Your task to perform on an android device: turn off wifi Image 0: 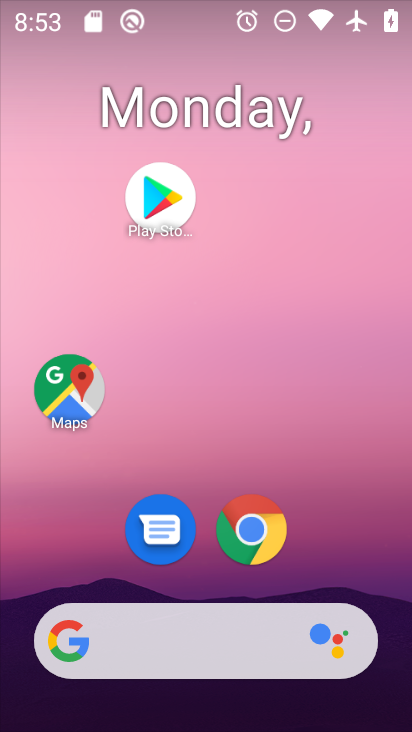
Step 0: drag from (331, 548) to (191, 82)
Your task to perform on an android device: turn off wifi Image 1: 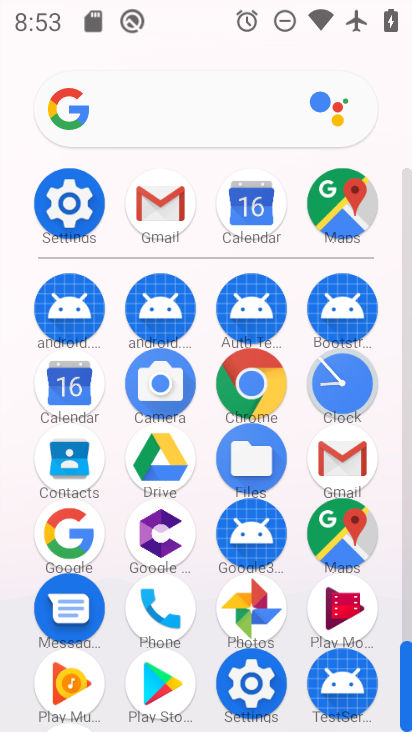
Step 1: click (69, 200)
Your task to perform on an android device: turn off wifi Image 2: 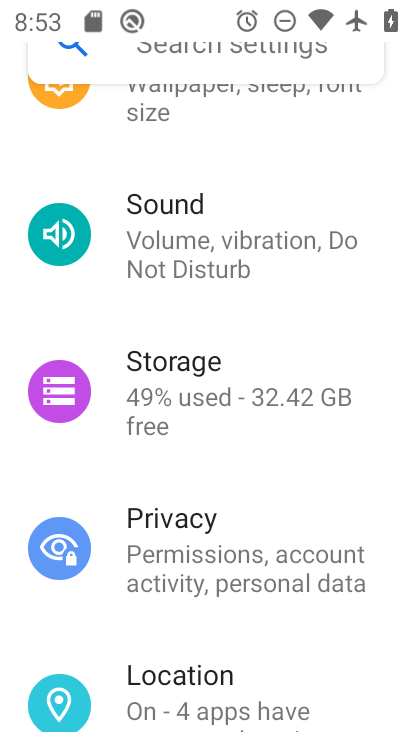
Step 2: drag from (250, 165) to (352, 702)
Your task to perform on an android device: turn off wifi Image 3: 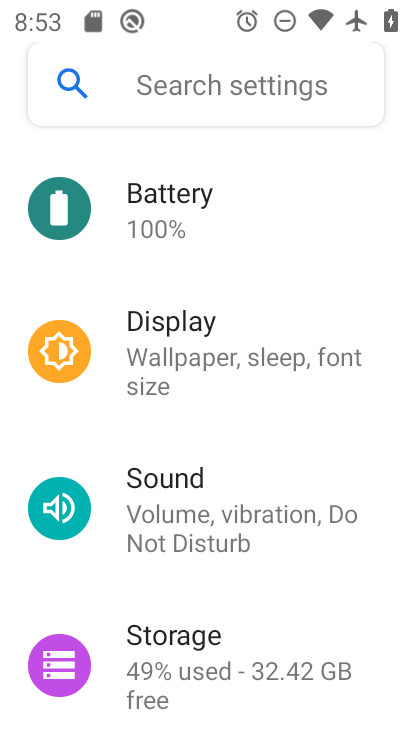
Step 3: drag from (213, 271) to (200, 686)
Your task to perform on an android device: turn off wifi Image 4: 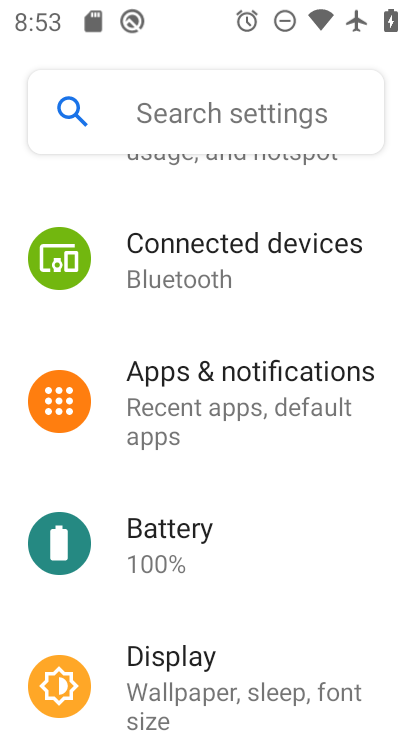
Step 4: drag from (225, 321) to (269, 624)
Your task to perform on an android device: turn off wifi Image 5: 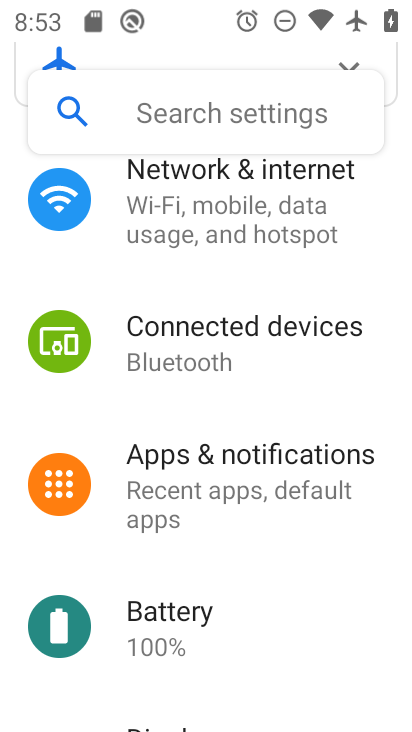
Step 5: drag from (247, 206) to (279, 517)
Your task to perform on an android device: turn off wifi Image 6: 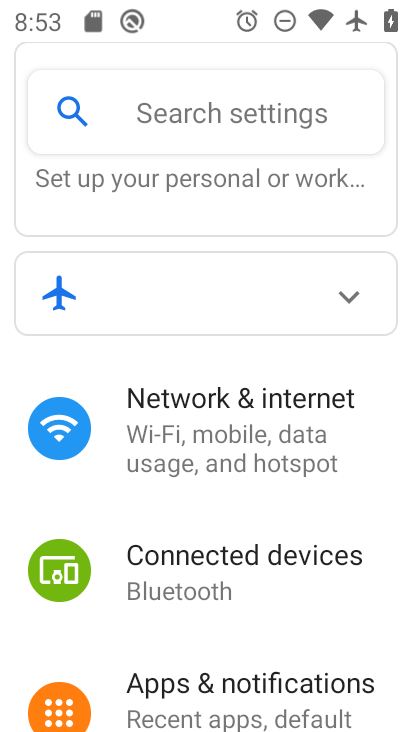
Step 6: click (219, 395)
Your task to perform on an android device: turn off wifi Image 7: 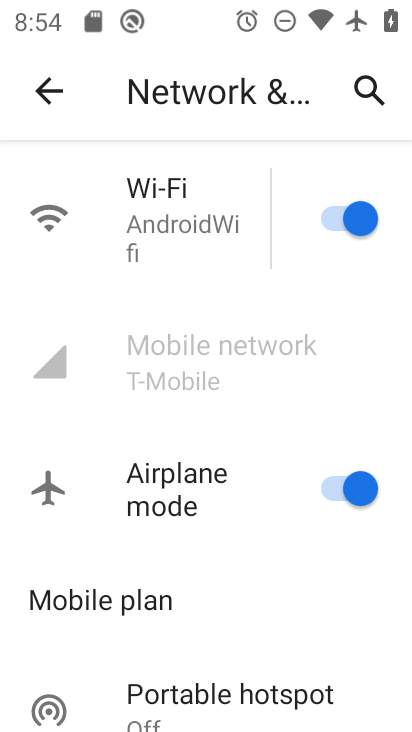
Step 7: click (341, 225)
Your task to perform on an android device: turn off wifi Image 8: 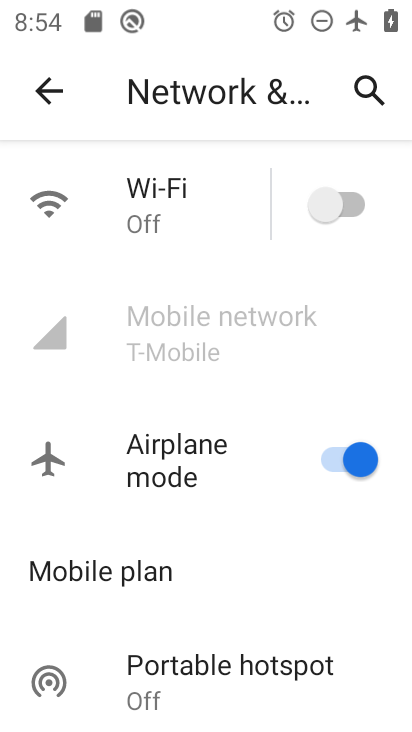
Step 8: task complete